Your task to perform on an android device: Show me the top rated dinnerware on Crate & Barrel Image 0: 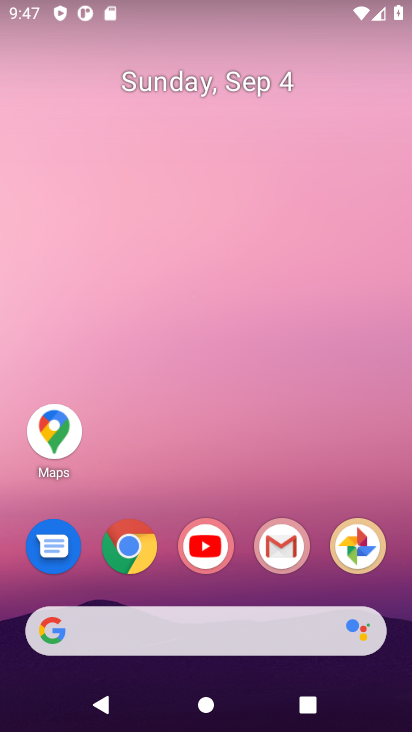
Step 0: click (116, 547)
Your task to perform on an android device: Show me the top rated dinnerware on Crate & Barrel Image 1: 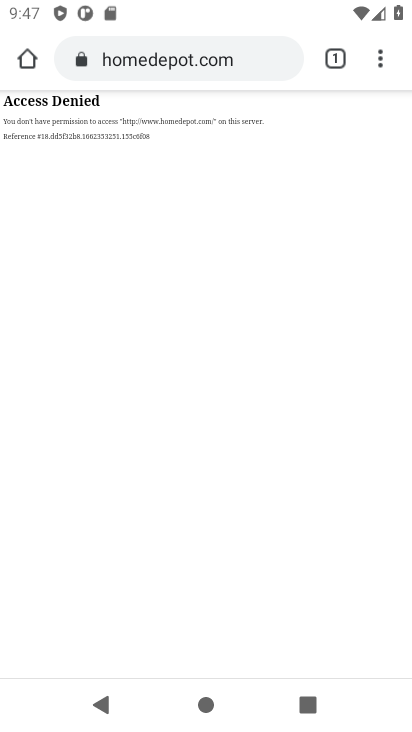
Step 1: click (173, 58)
Your task to perform on an android device: Show me the top rated dinnerware on Crate & Barrel Image 2: 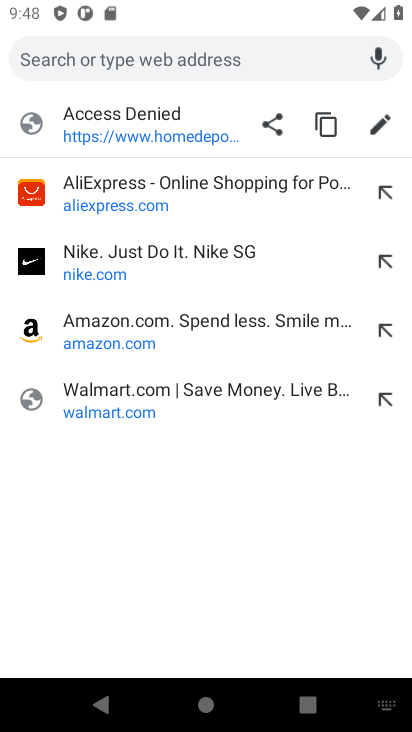
Step 2: type "Crate & Barrel"
Your task to perform on an android device: Show me the top rated dinnerware on Crate & Barrel Image 3: 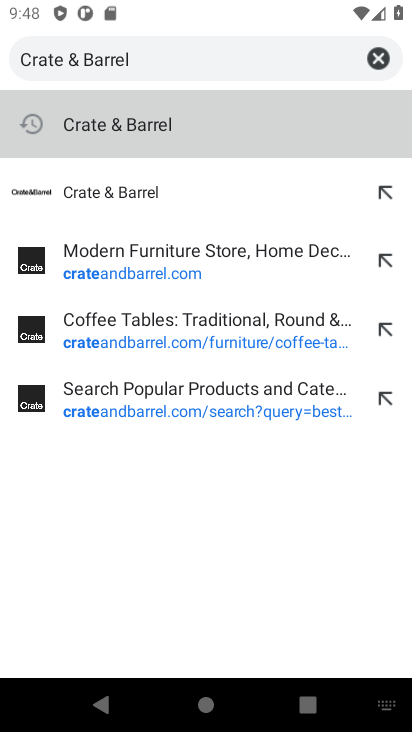
Step 3: click (111, 195)
Your task to perform on an android device: Show me the top rated dinnerware on Crate & Barrel Image 4: 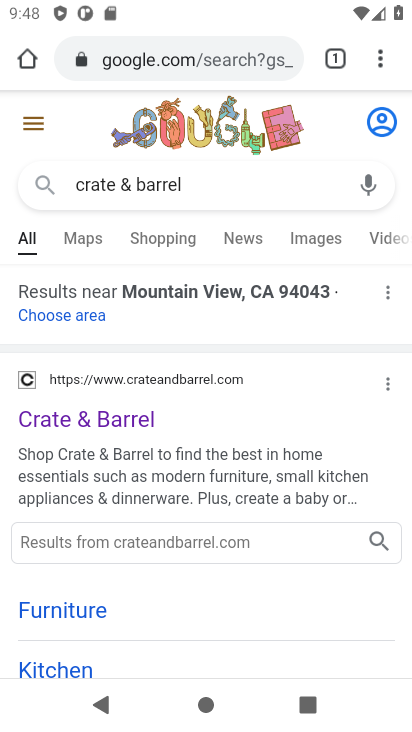
Step 4: click (96, 421)
Your task to perform on an android device: Show me the top rated dinnerware on Crate & Barrel Image 5: 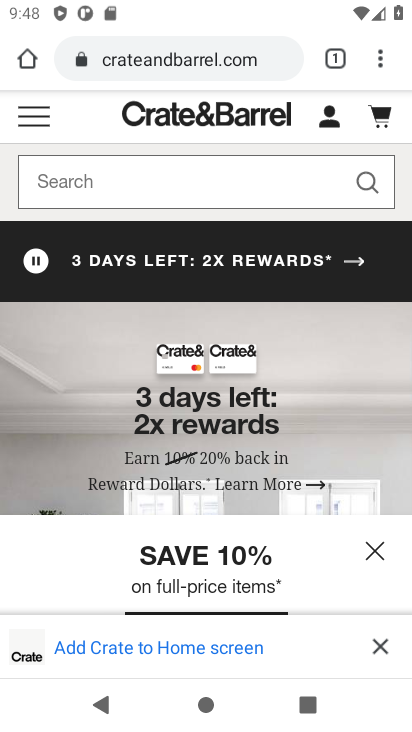
Step 5: click (107, 181)
Your task to perform on an android device: Show me the top rated dinnerware on Crate & Barrel Image 6: 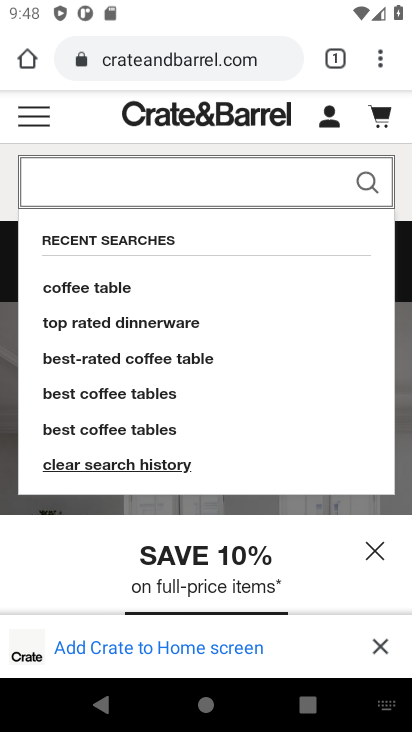
Step 6: type "top rated dinnerware"
Your task to perform on an android device: Show me the top rated dinnerware on Crate & Barrel Image 7: 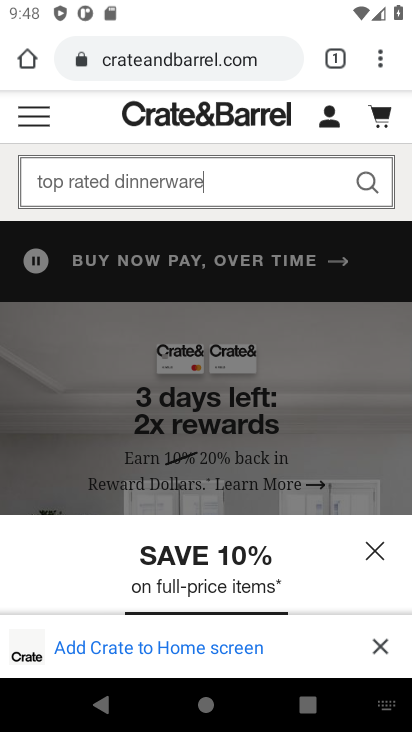
Step 7: click (364, 183)
Your task to perform on an android device: Show me the top rated dinnerware on Crate & Barrel Image 8: 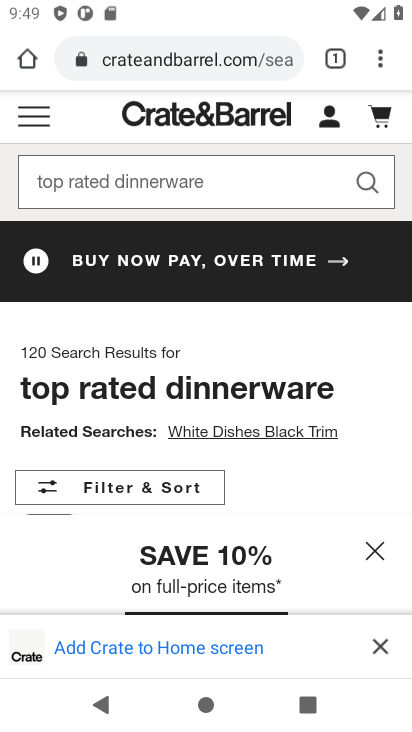
Step 8: task complete